Your task to perform on an android device: Clear the shopping cart on ebay.com. Image 0: 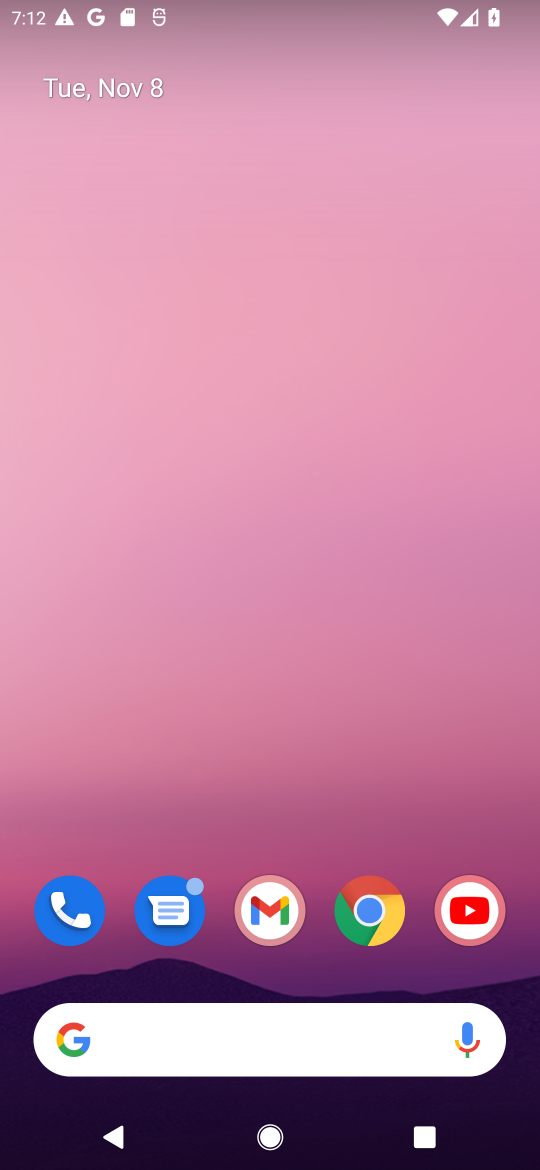
Step 0: click (368, 917)
Your task to perform on an android device: Clear the shopping cart on ebay.com. Image 1: 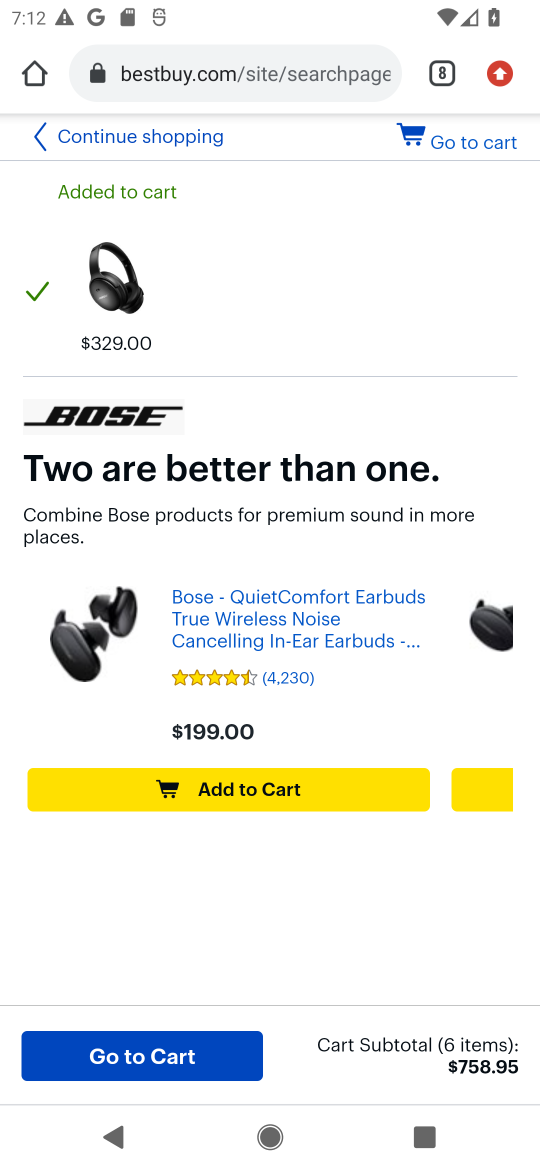
Step 1: click (442, 78)
Your task to perform on an android device: Clear the shopping cart on ebay.com. Image 2: 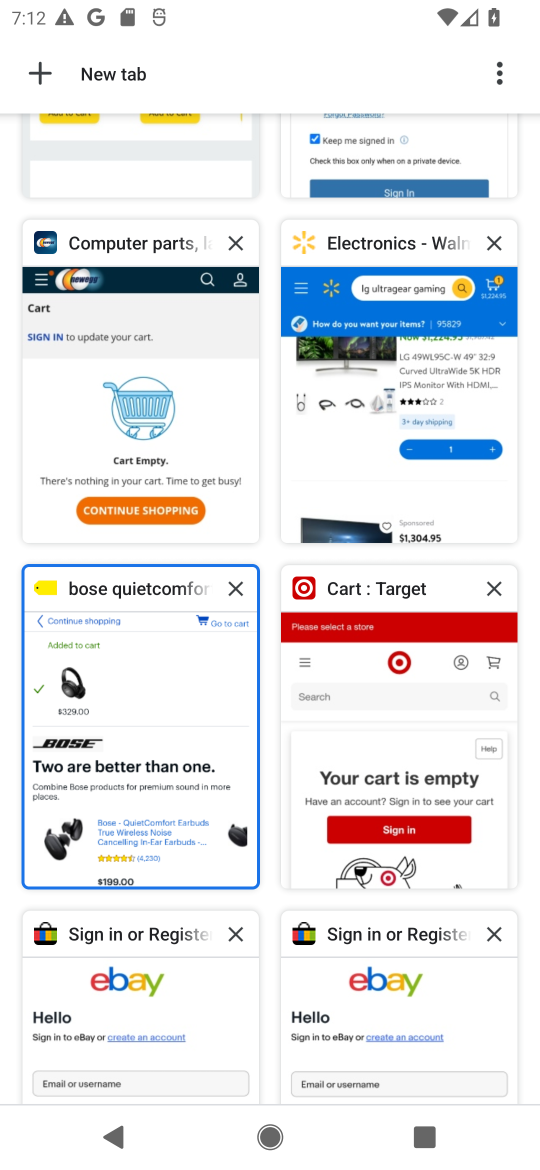
Step 2: click (496, 935)
Your task to perform on an android device: Clear the shopping cart on ebay.com. Image 3: 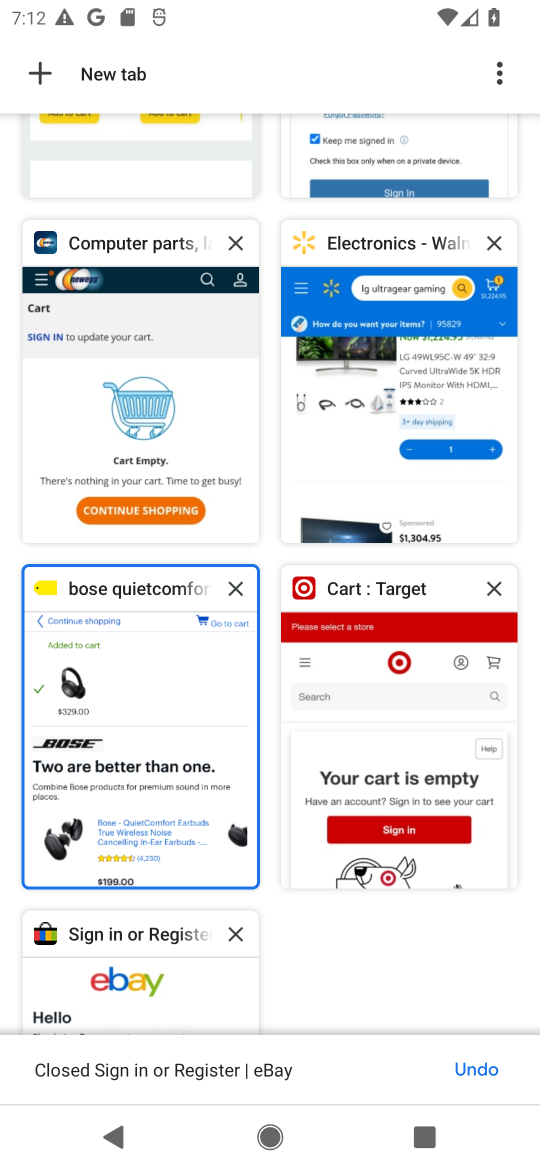
Step 3: click (208, 984)
Your task to perform on an android device: Clear the shopping cart on ebay.com. Image 4: 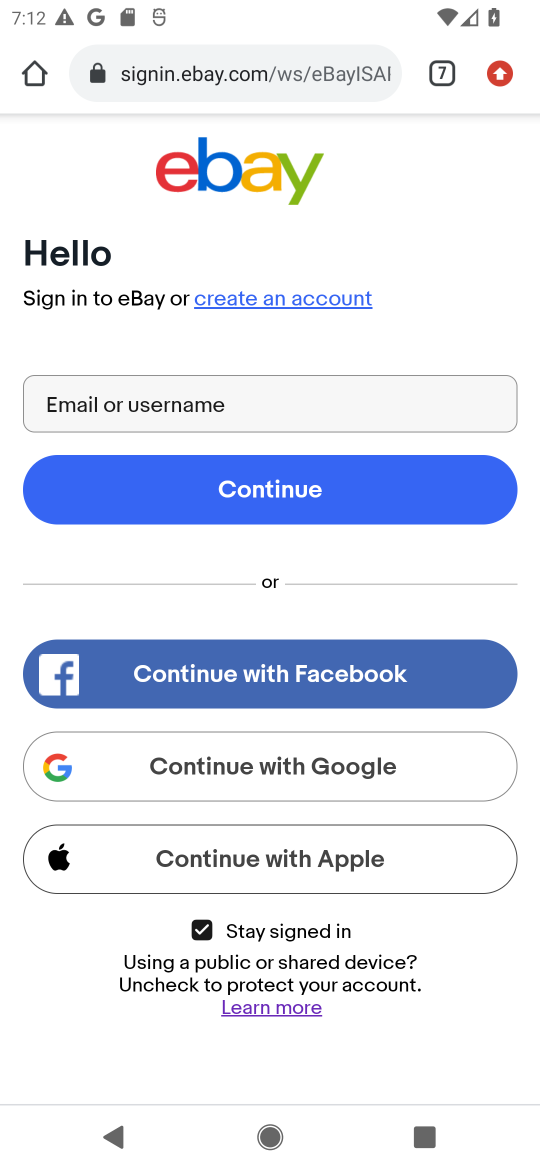
Step 4: press back button
Your task to perform on an android device: Clear the shopping cart on ebay.com. Image 5: 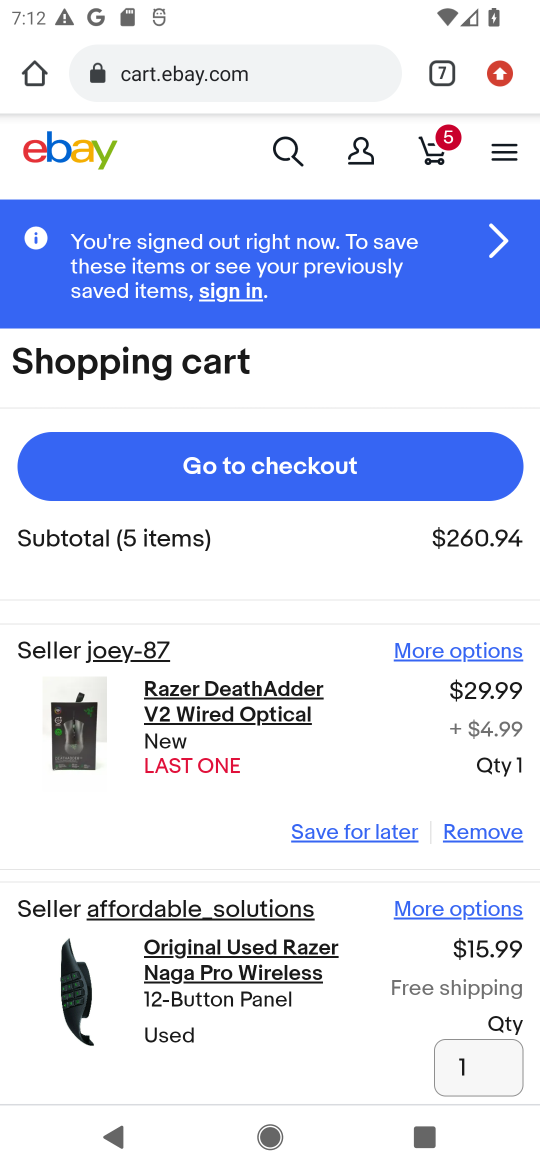
Step 5: click (478, 825)
Your task to perform on an android device: Clear the shopping cart on ebay.com. Image 6: 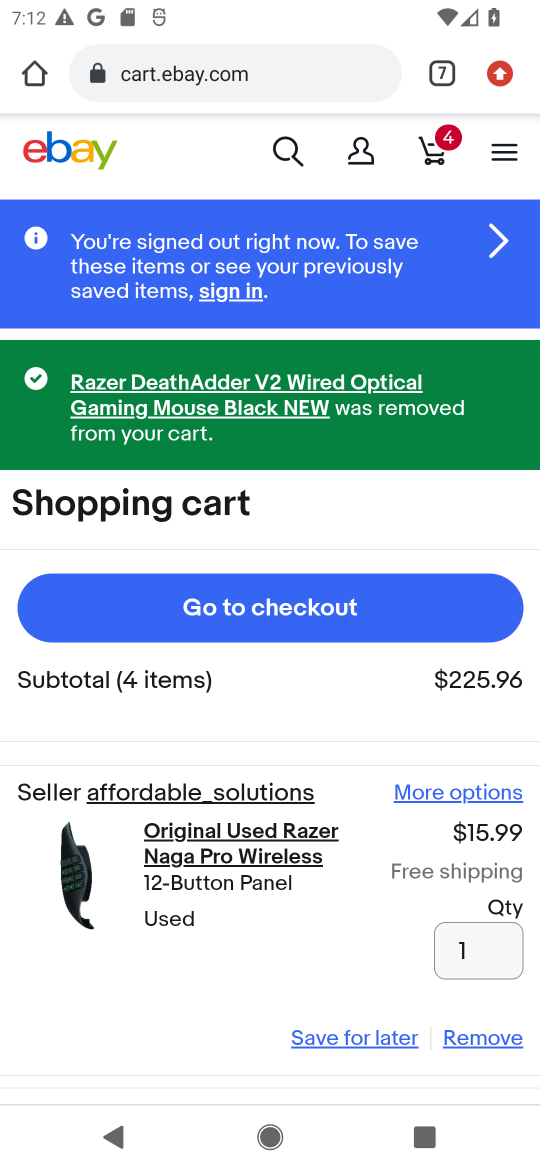
Step 6: click (469, 1031)
Your task to perform on an android device: Clear the shopping cart on ebay.com. Image 7: 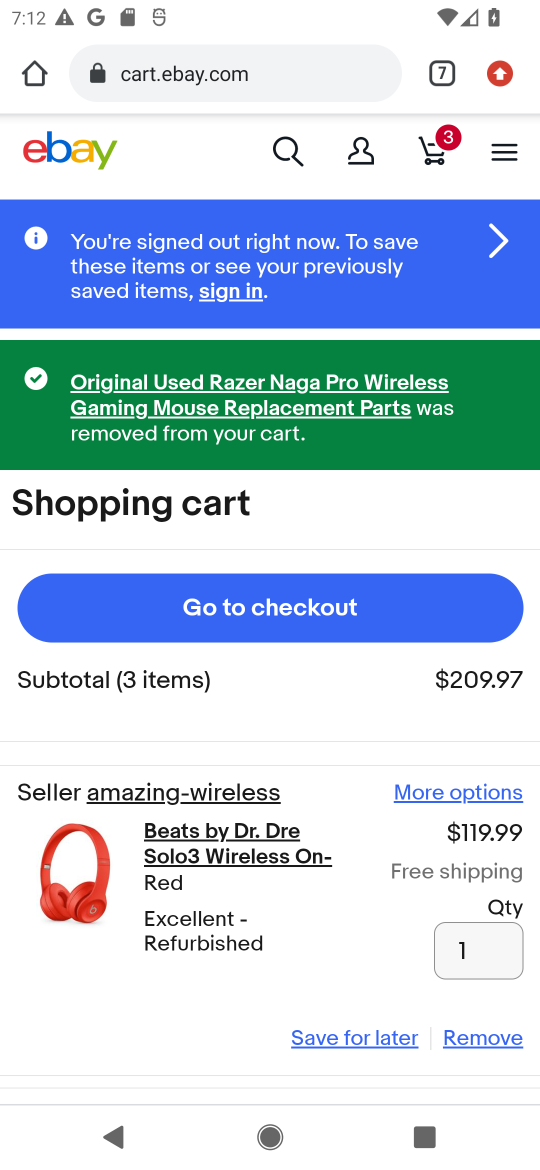
Step 7: click (479, 1044)
Your task to perform on an android device: Clear the shopping cart on ebay.com. Image 8: 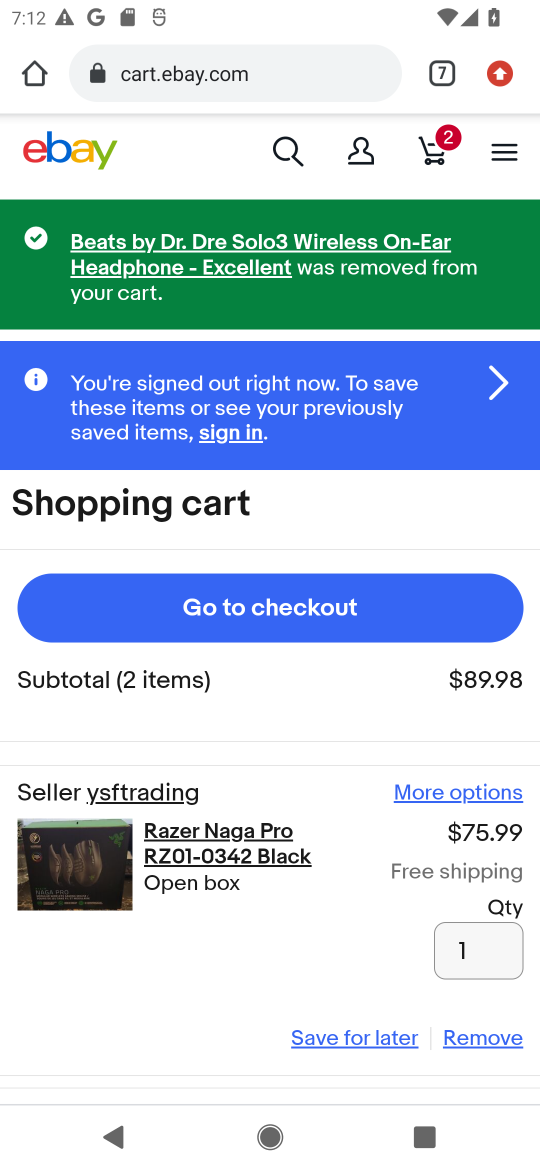
Step 8: click (481, 1040)
Your task to perform on an android device: Clear the shopping cart on ebay.com. Image 9: 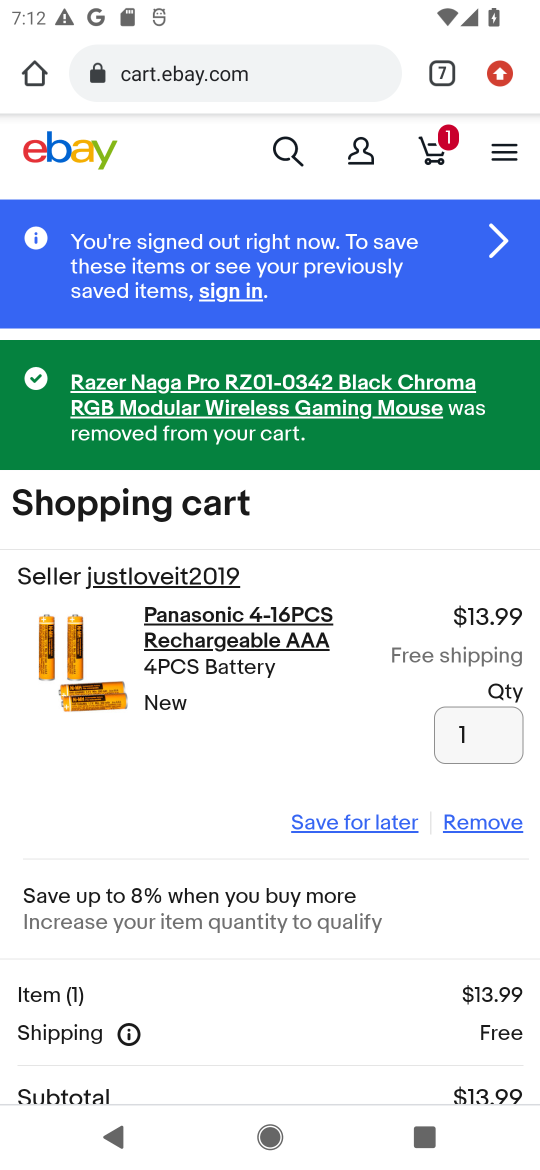
Step 9: click (488, 824)
Your task to perform on an android device: Clear the shopping cart on ebay.com. Image 10: 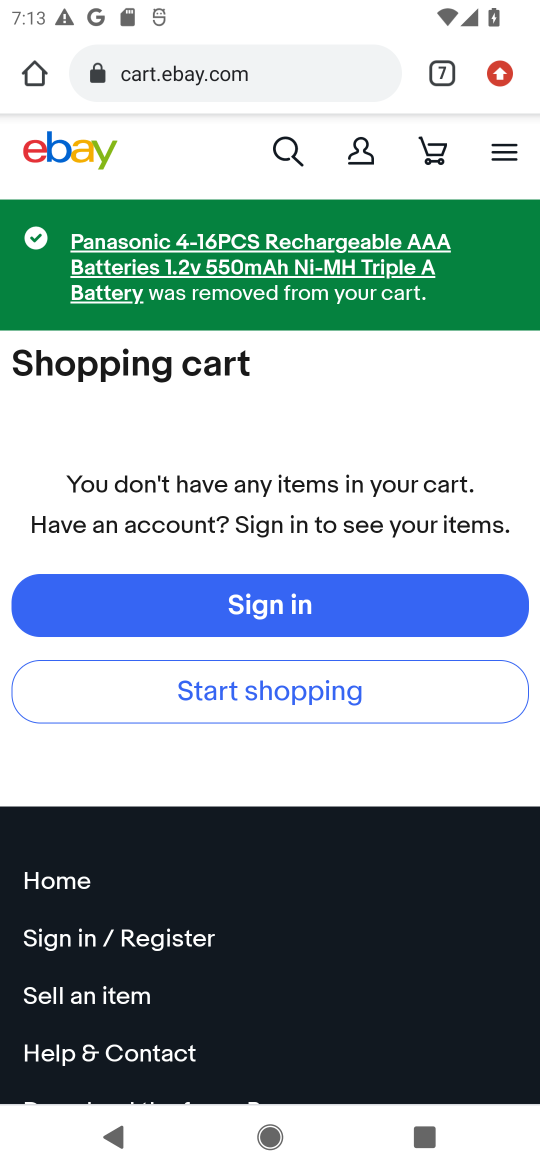
Step 10: task complete